Your task to perform on an android device: all mails in gmail Image 0: 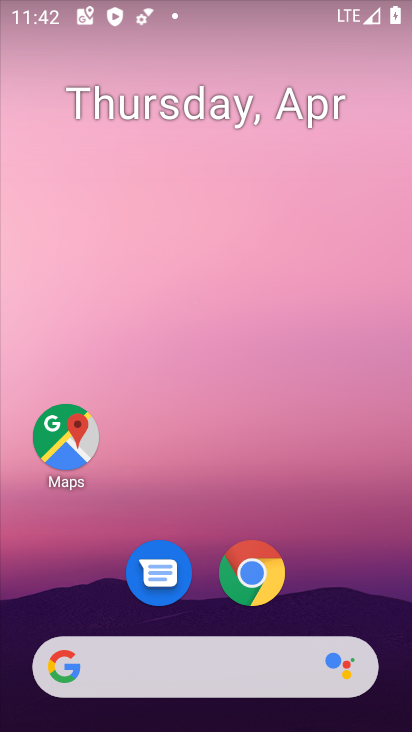
Step 0: drag from (326, 576) to (357, 104)
Your task to perform on an android device: all mails in gmail Image 1: 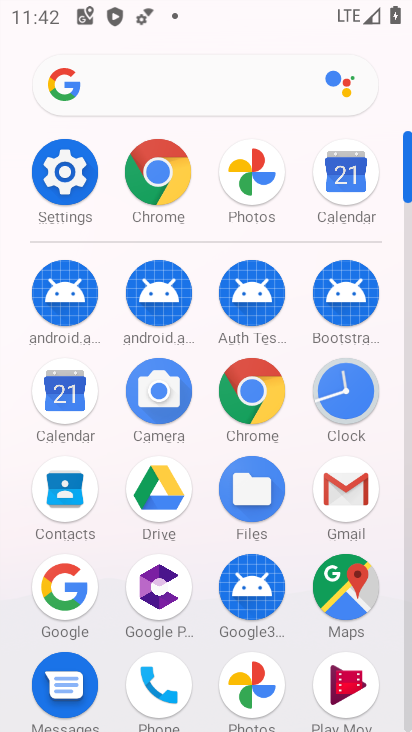
Step 1: click (356, 488)
Your task to perform on an android device: all mails in gmail Image 2: 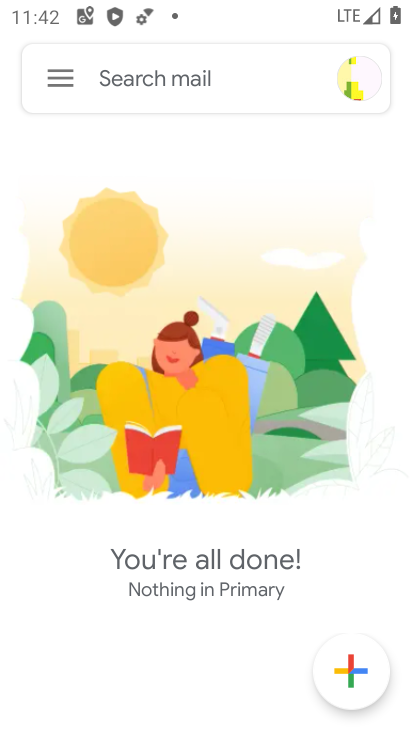
Step 2: click (62, 75)
Your task to perform on an android device: all mails in gmail Image 3: 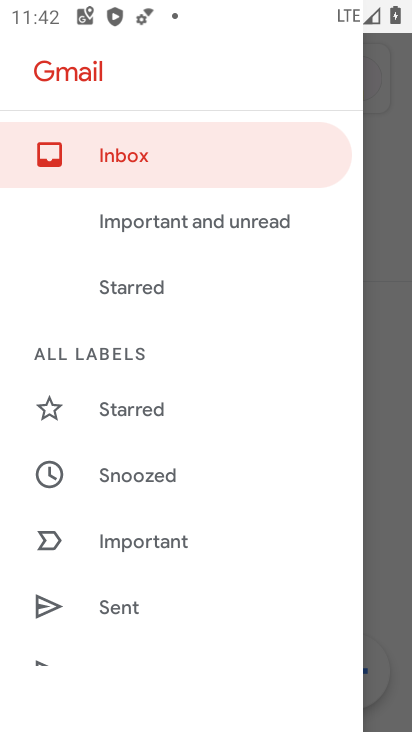
Step 3: drag from (192, 606) to (224, 121)
Your task to perform on an android device: all mails in gmail Image 4: 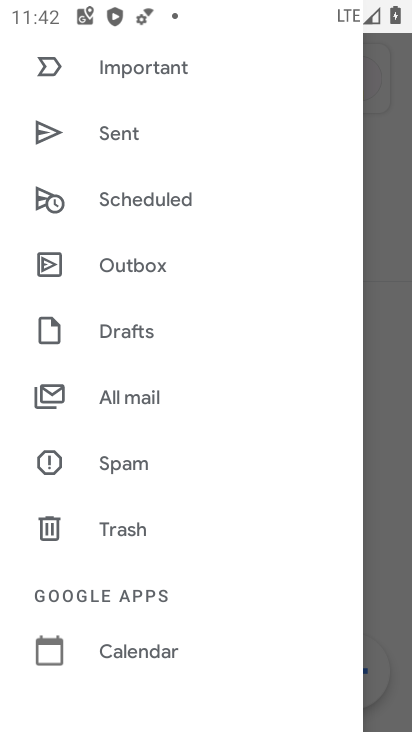
Step 4: click (152, 389)
Your task to perform on an android device: all mails in gmail Image 5: 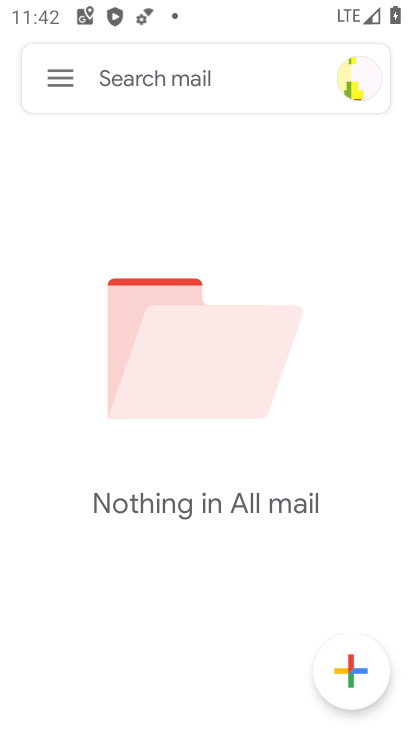
Step 5: task complete